Your task to perform on an android device: turn on location history Image 0: 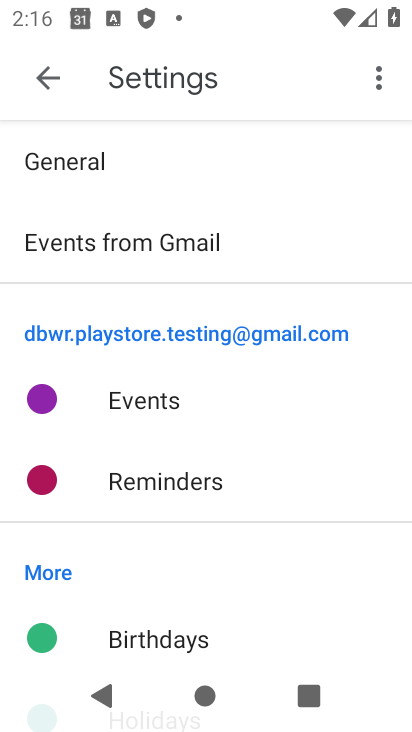
Step 0: press home button
Your task to perform on an android device: turn on location history Image 1: 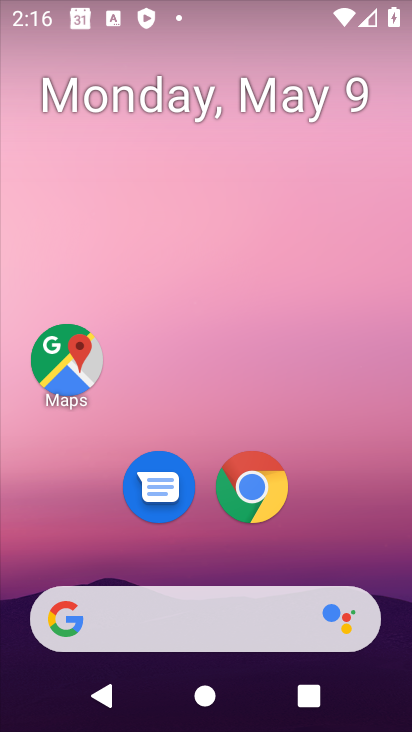
Step 1: drag from (339, 557) to (264, 11)
Your task to perform on an android device: turn on location history Image 2: 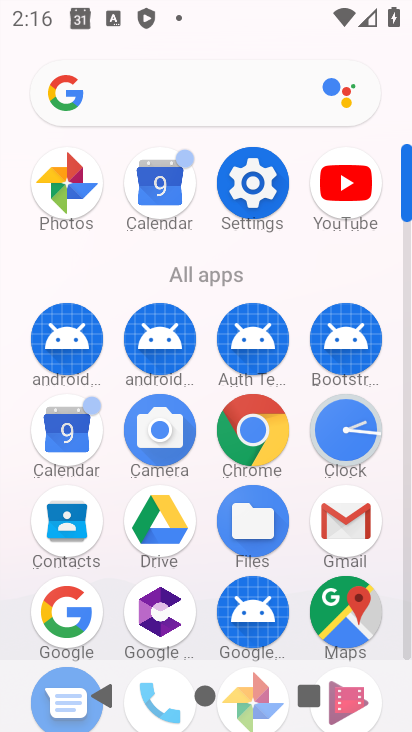
Step 2: click (241, 172)
Your task to perform on an android device: turn on location history Image 3: 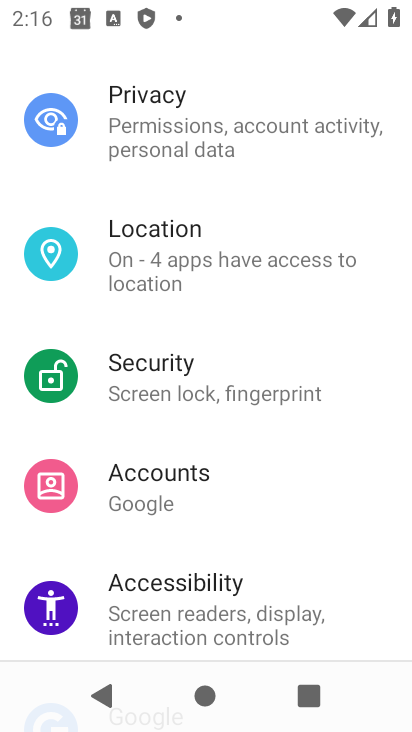
Step 3: click (207, 248)
Your task to perform on an android device: turn on location history Image 4: 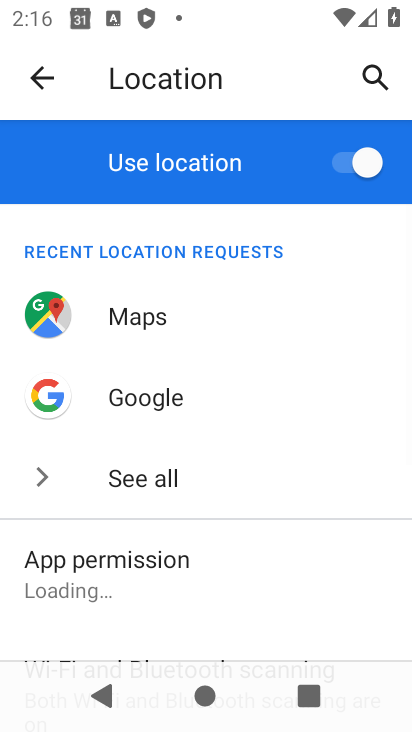
Step 4: drag from (174, 593) to (197, 86)
Your task to perform on an android device: turn on location history Image 5: 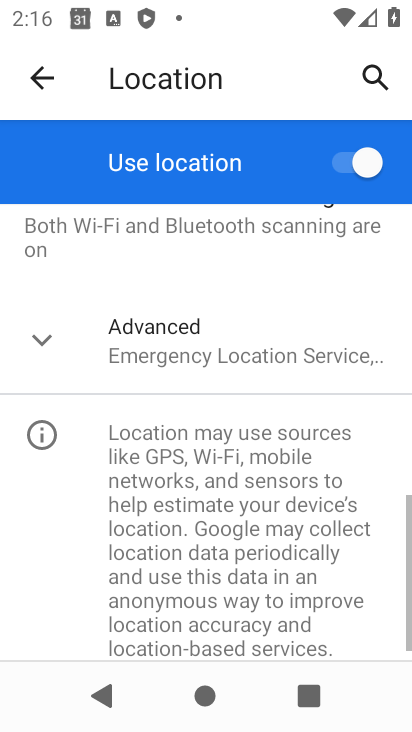
Step 5: click (42, 332)
Your task to perform on an android device: turn on location history Image 6: 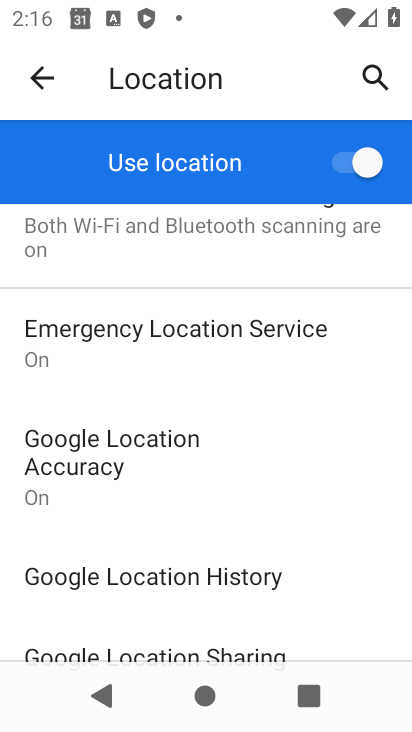
Step 6: click (259, 570)
Your task to perform on an android device: turn on location history Image 7: 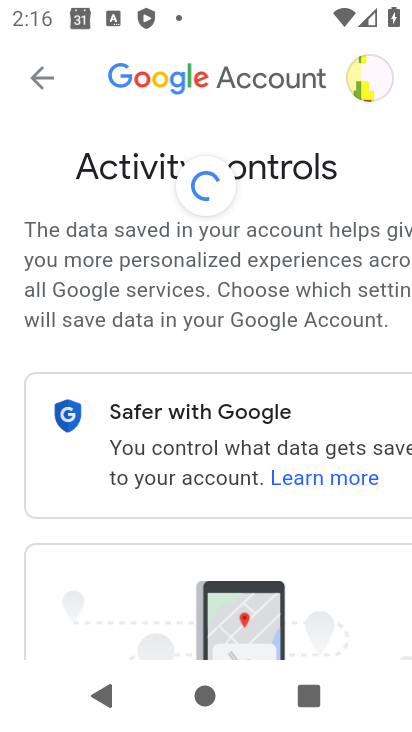
Step 7: task complete